Your task to perform on an android device: open a new tab in the chrome app Image 0: 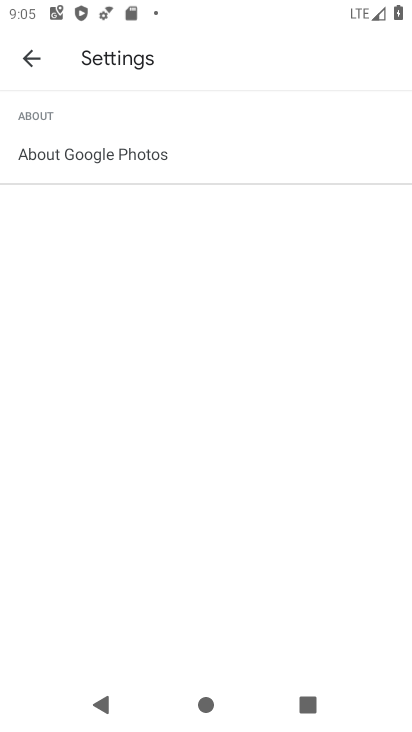
Step 0: press home button
Your task to perform on an android device: open a new tab in the chrome app Image 1: 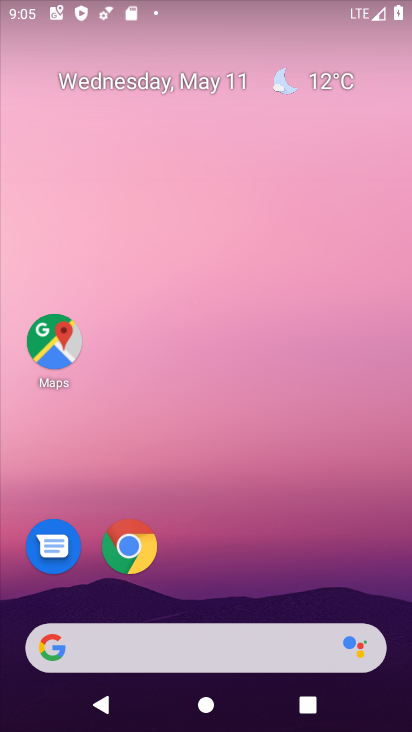
Step 1: click (132, 545)
Your task to perform on an android device: open a new tab in the chrome app Image 2: 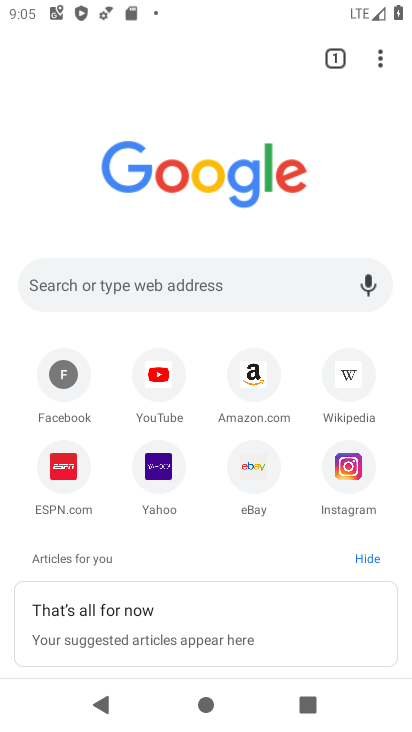
Step 2: click (378, 61)
Your task to perform on an android device: open a new tab in the chrome app Image 3: 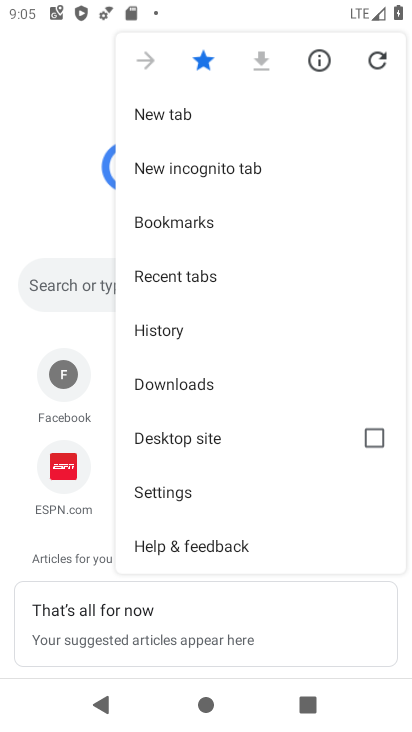
Step 3: click (161, 114)
Your task to perform on an android device: open a new tab in the chrome app Image 4: 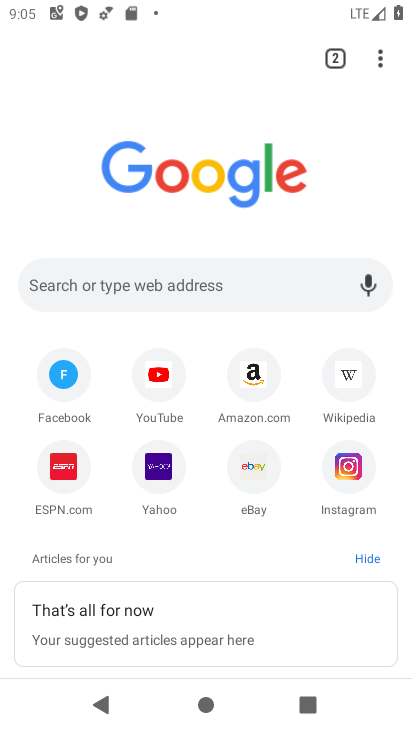
Step 4: task complete